Your task to perform on an android device: Turn on the flashlight Image 0: 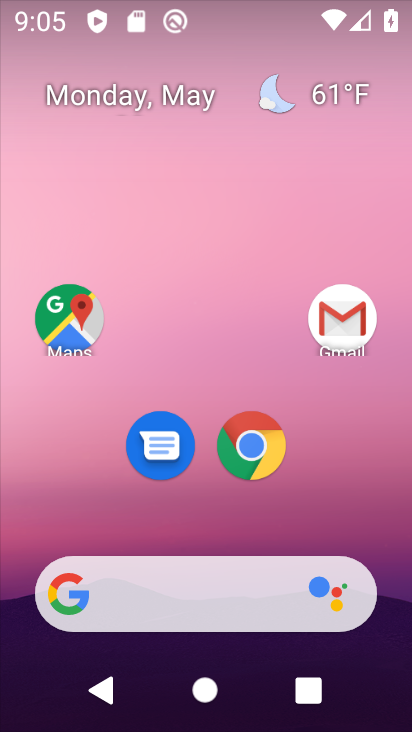
Step 0: drag from (240, 0) to (239, 400)
Your task to perform on an android device: Turn on the flashlight Image 1: 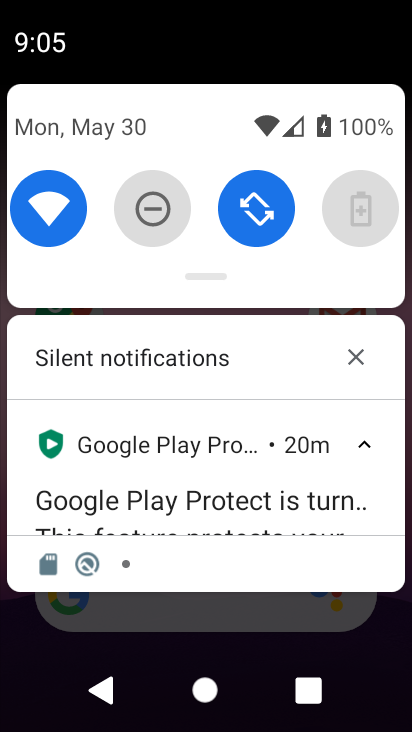
Step 1: drag from (202, 104) to (193, 368)
Your task to perform on an android device: Turn on the flashlight Image 2: 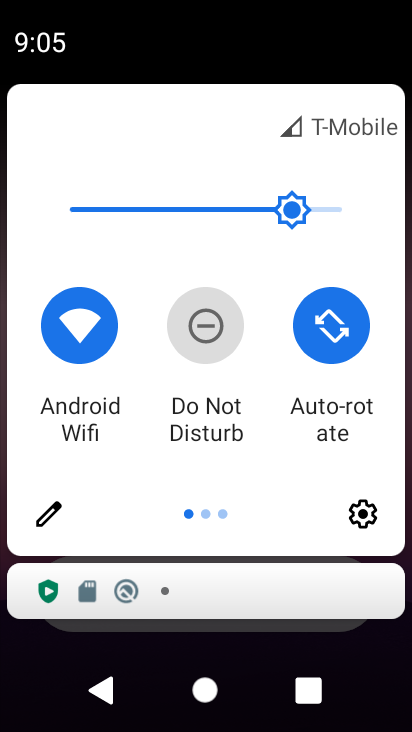
Step 2: click (59, 517)
Your task to perform on an android device: Turn on the flashlight Image 3: 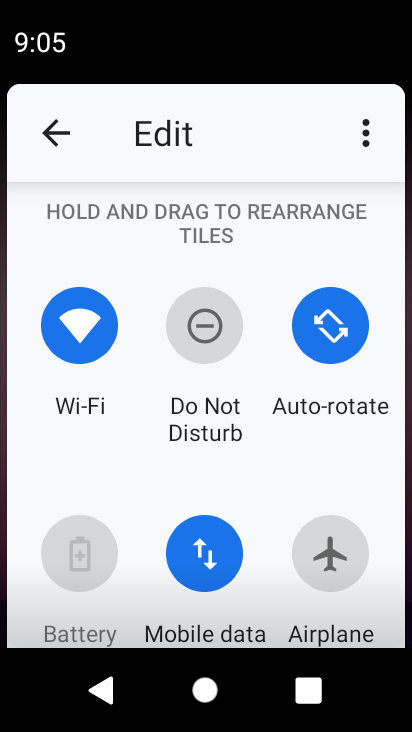
Step 3: drag from (253, 504) to (272, 355)
Your task to perform on an android device: Turn on the flashlight Image 4: 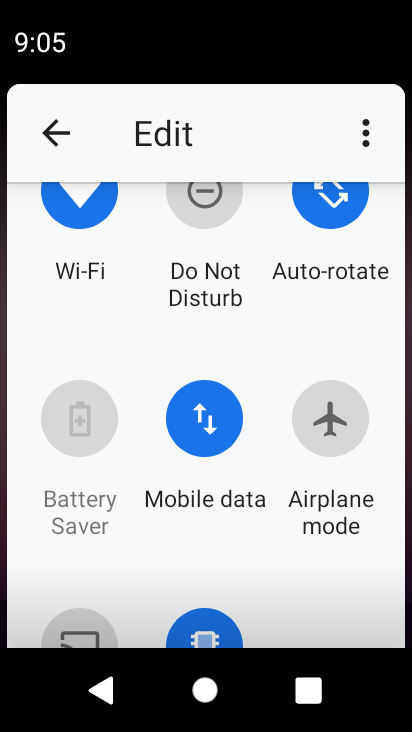
Step 4: drag from (281, 544) to (272, 381)
Your task to perform on an android device: Turn on the flashlight Image 5: 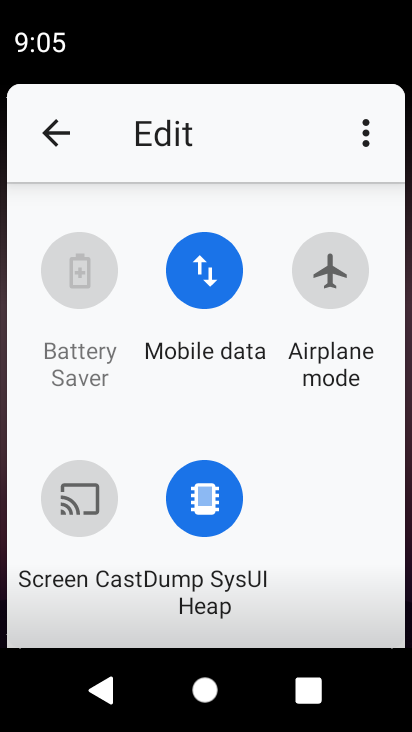
Step 5: drag from (284, 533) to (279, 315)
Your task to perform on an android device: Turn on the flashlight Image 6: 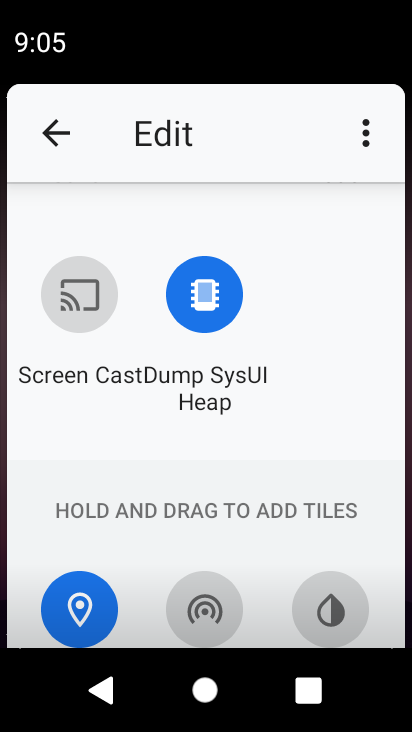
Step 6: drag from (281, 560) to (281, 346)
Your task to perform on an android device: Turn on the flashlight Image 7: 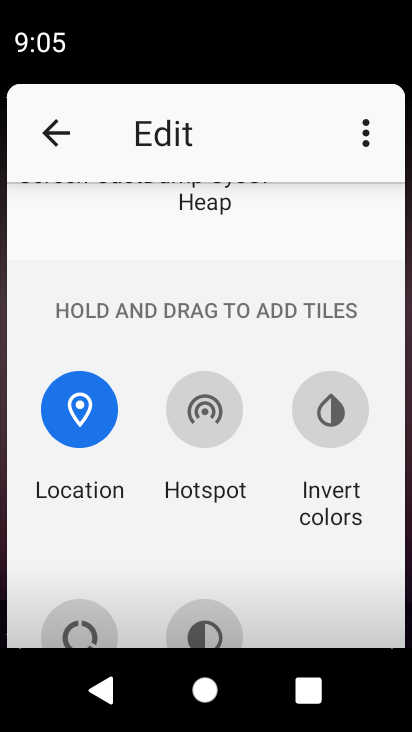
Step 7: drag from (267, 552) to (263, 343)
Your task to perform on an android device: Turn on the flashlight Image 8: 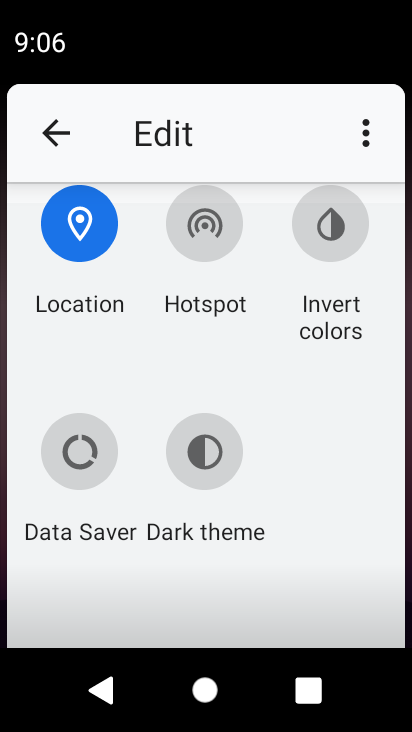
Step 8: drag from (275, 525) to (281, 355)
Your task to perform on an android device: Turn on the flashlight Image 9: 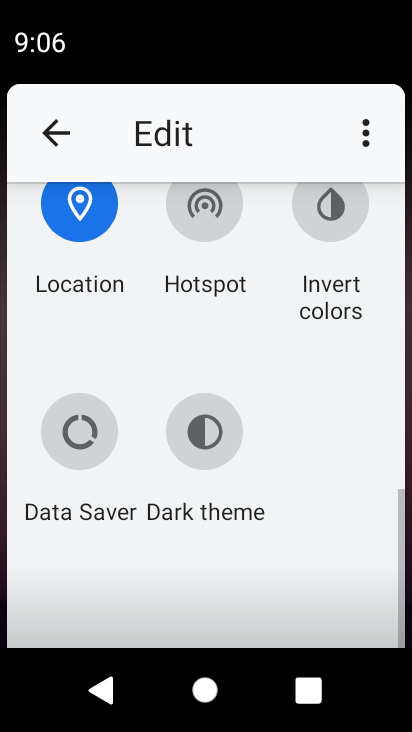
Step 9: click (280, 241)
Your task to perform on an android device: Turn on the flashlight Image 10: 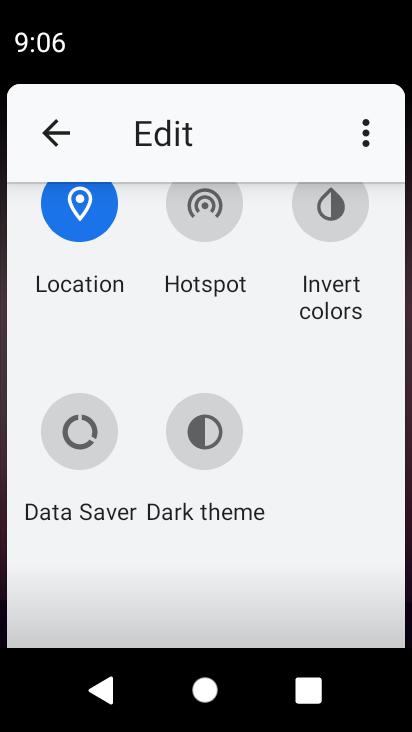
Step 10: task complete